Your task to perform on an android device: How do I get to the nearest grocery store? Image 0: 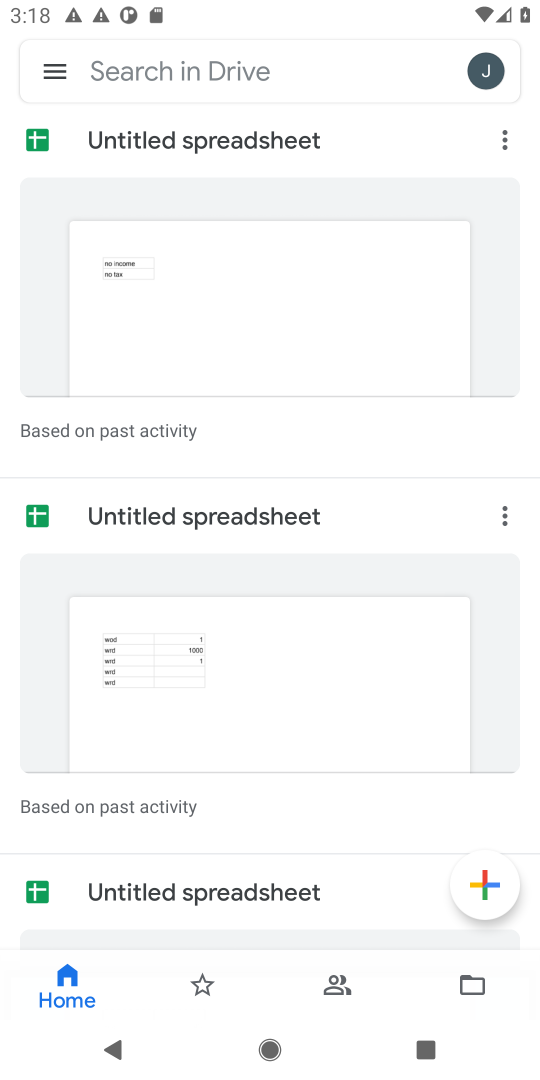
Step 0: press home button
Your task to perform on an android device: How do I get to the nearest grocery store? Image 1: 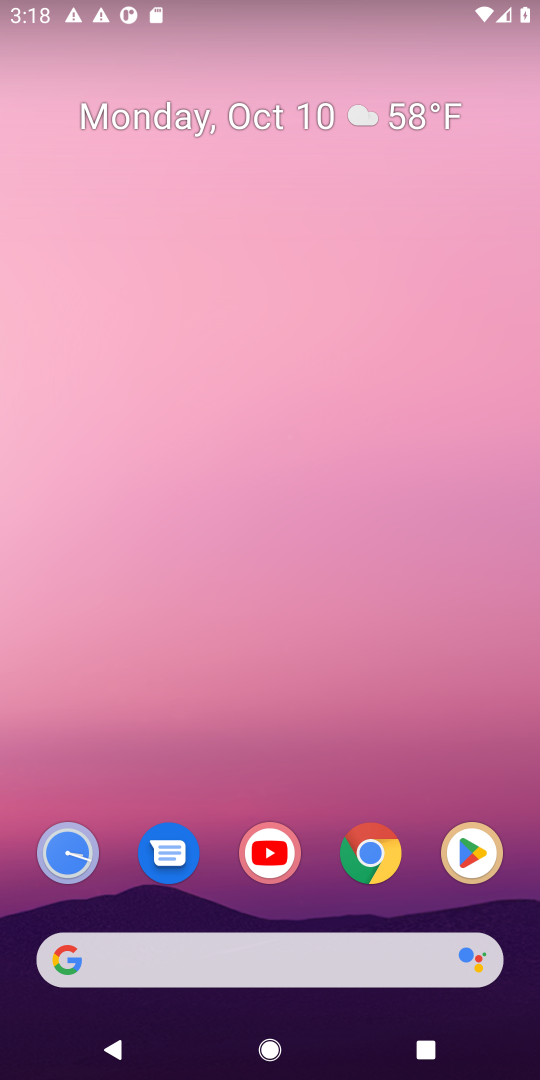
Step 1: drag from (343, 727) to (326, 15)
Your task to perform on an android device: How do I get to the nearest grocery store? Image 2: 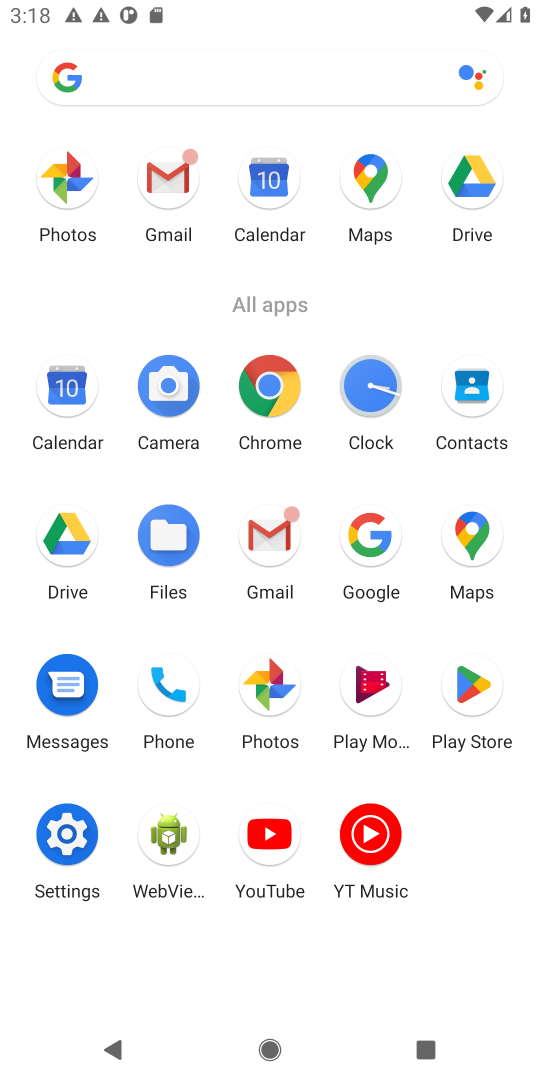
Step 2: click (275, 397)
Your task to perform on an android device: How do I get to the nearest grocery store? Image 3: 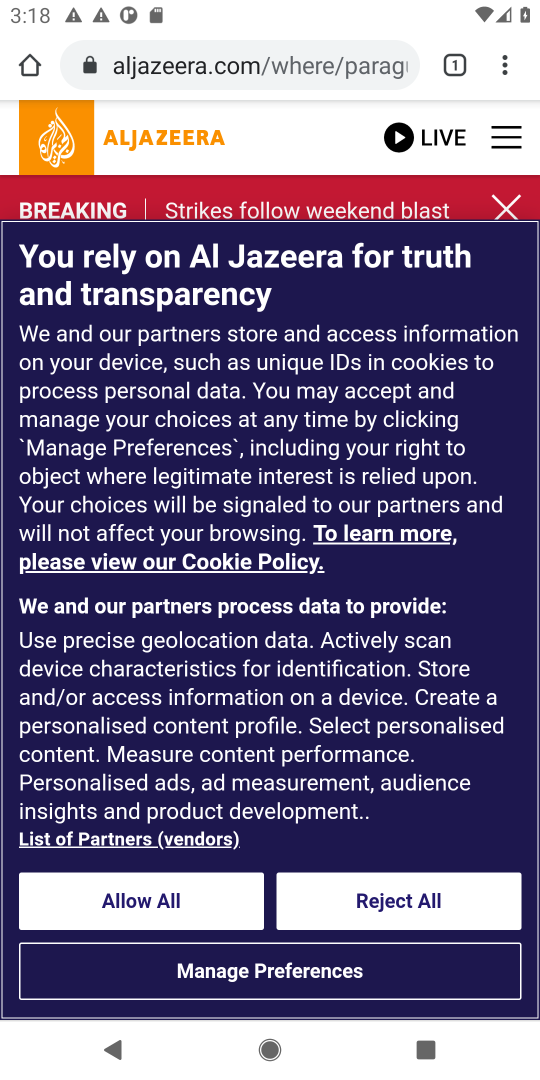
Step 3: click (228, 60)
Your task to perform on an android device: How do I get to the nearest grocery store? Image 4: 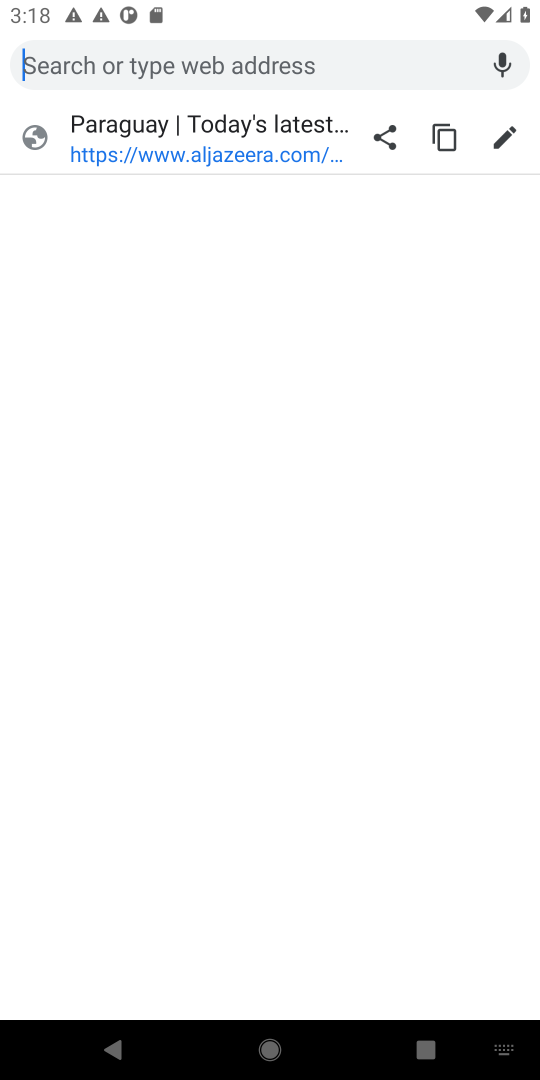
Step 4: type "How do I get to the nearest grocery store?"
Your task to perform on an android device: How do I get to the nearest grocery store? Image 5: 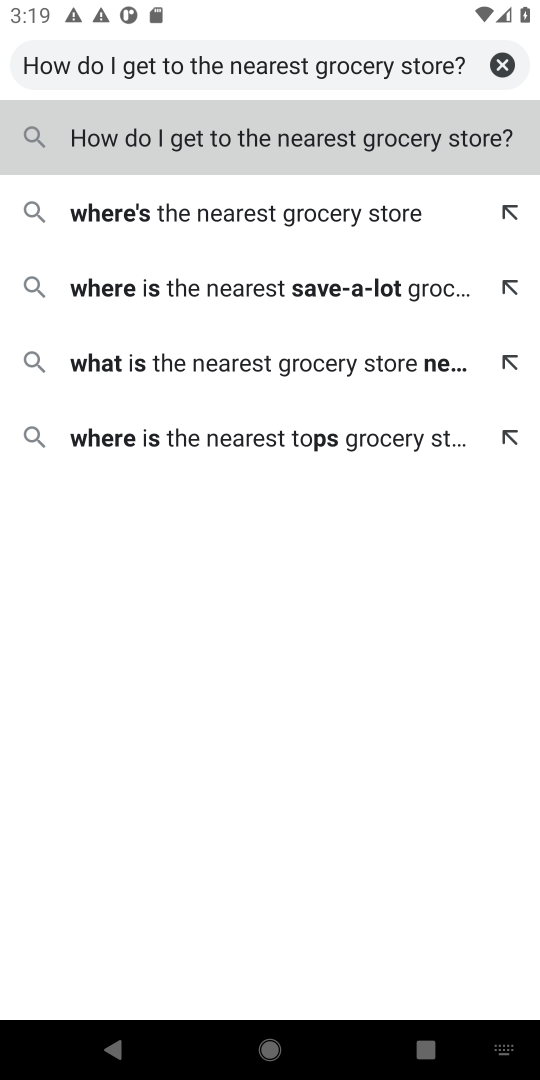
Step 5: click (326, 132)
Your task to perform on an android device: How do I get to the nearest grocery store? Image 6: 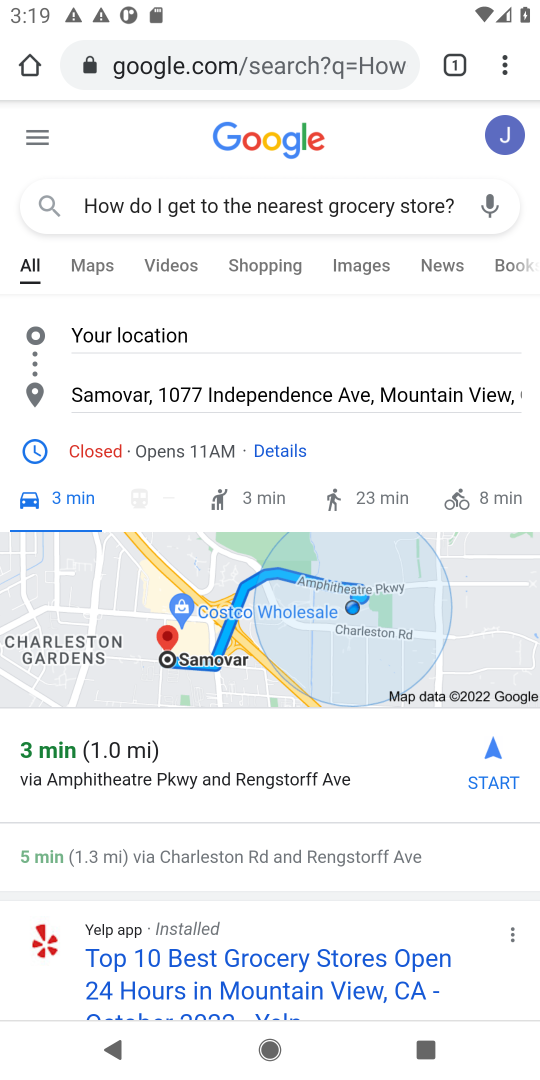
Step 6: task complete